Your task to perform on an android device: change timer sound Image 0: 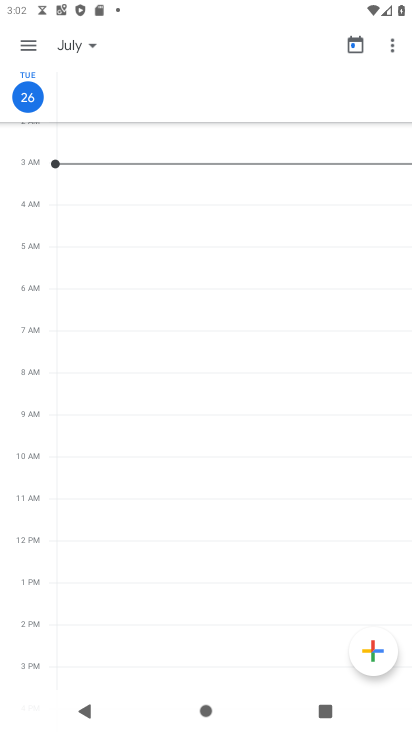
Step 0: press home button
Your task to perform on an android device: change timer sound Image 1: 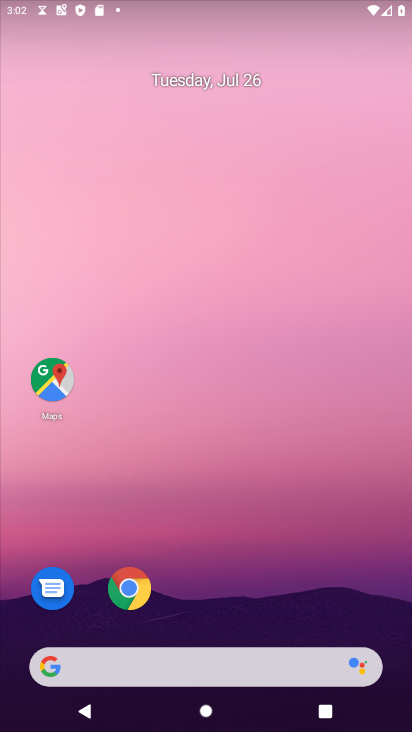
Step 1: drag from (259, 571) to (178, 99)
Your task to perform on an android device: change timer sound Image 2: 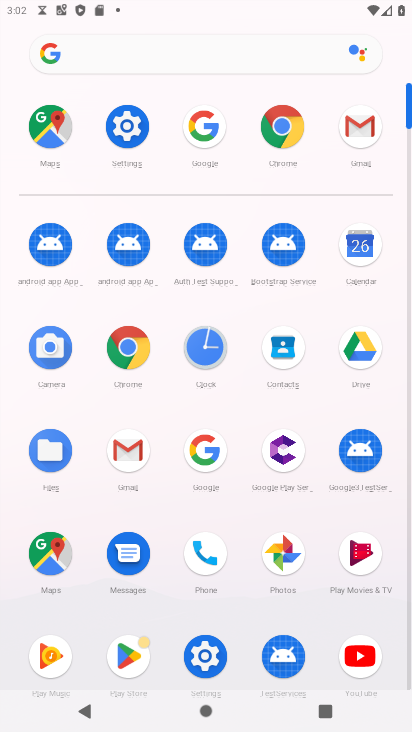
Step 2: click (214, 345)
Your task to perform on an android device: change timer sound Image 3: 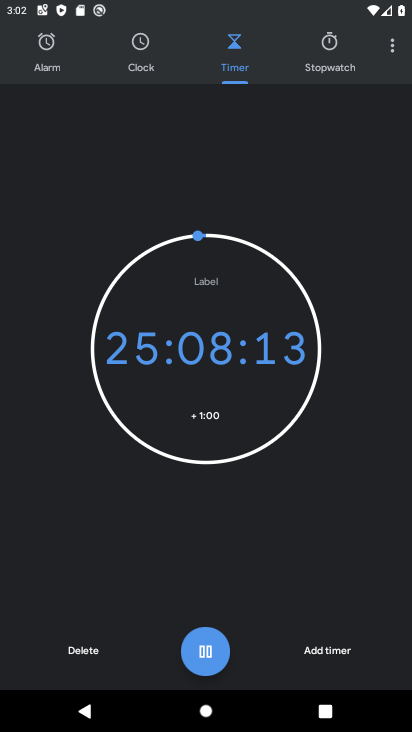
Step 3: click (390, 50)
Your task to perform on an android device: change timer sound Image 4: 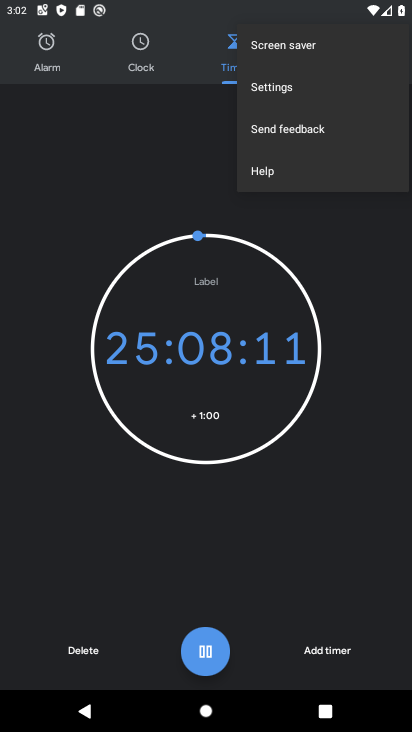
Step 4: click (253, 86)
Your task to perform on an android device: change timer sound Image 5: 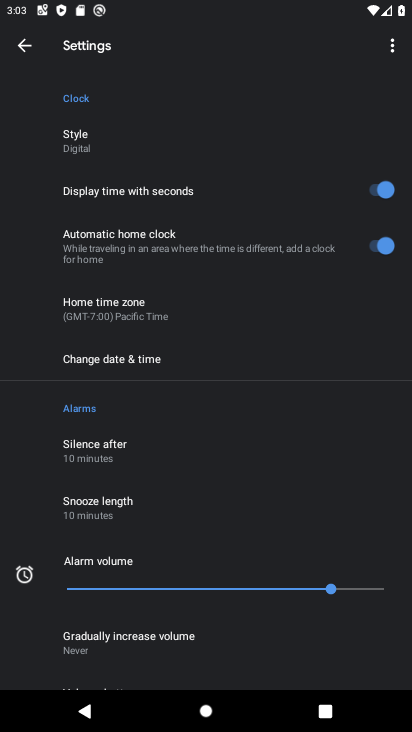
Step 5: drag from (251, 506) to (314, 152)
Your task to perform on an android device: change timer sound Image 6: 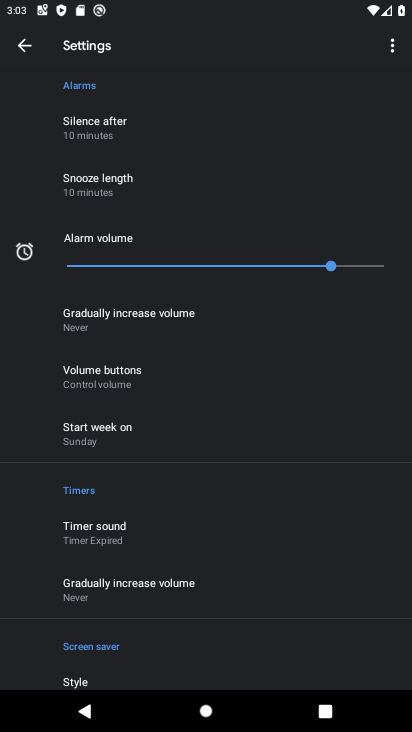
Step 6: click (117, 535)
Your task to perform on an android device: change timer sound Image 7: 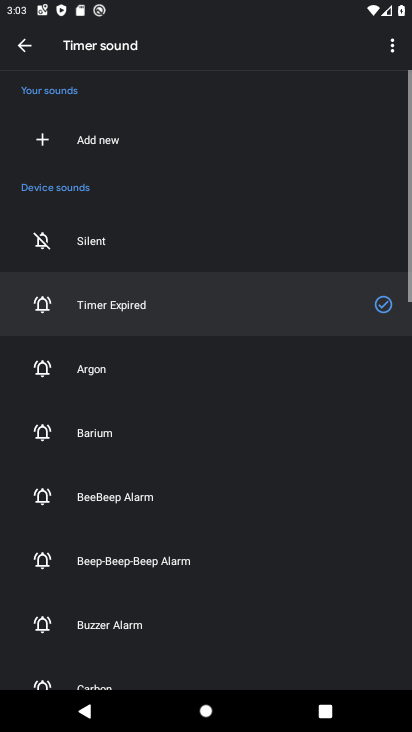
Step 7: click (100, 435)
Your task to perform on an android device: change timer sound Image 8: 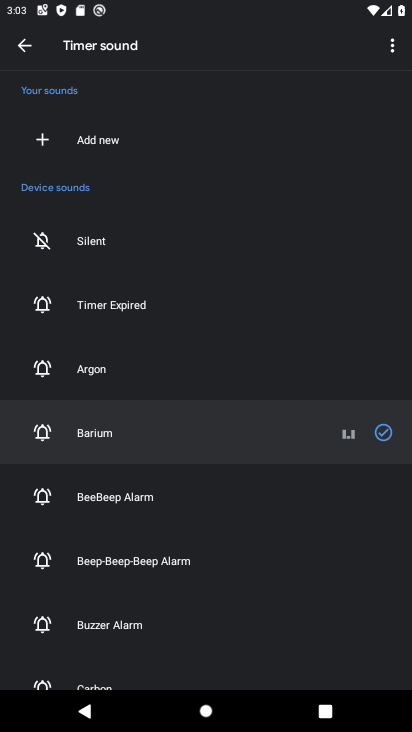
Step 8: task complete